Your task to perform on an android device: turn off improve location accuracy Image 0: 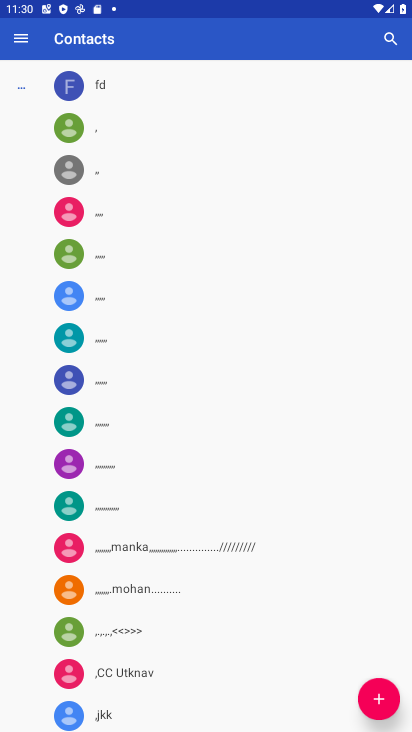
Step 0: press home button
Your task to perform on an android device: turn off improve location accuracy Image 1: 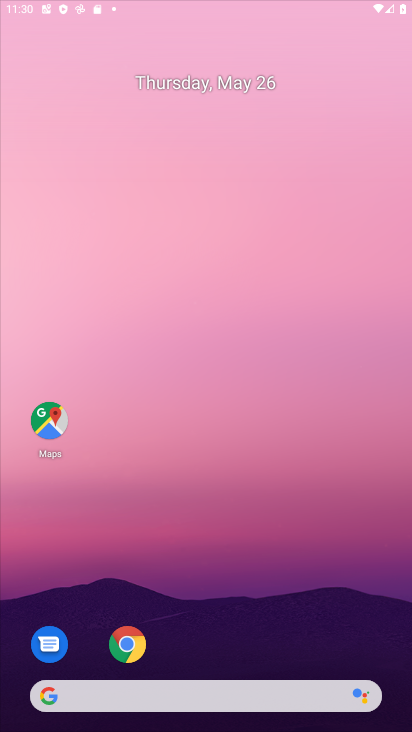
Step 1: drag from (315, 655) to (246, 54)
Your task to perform on an android device: turn off improve location accuracy Image 2: 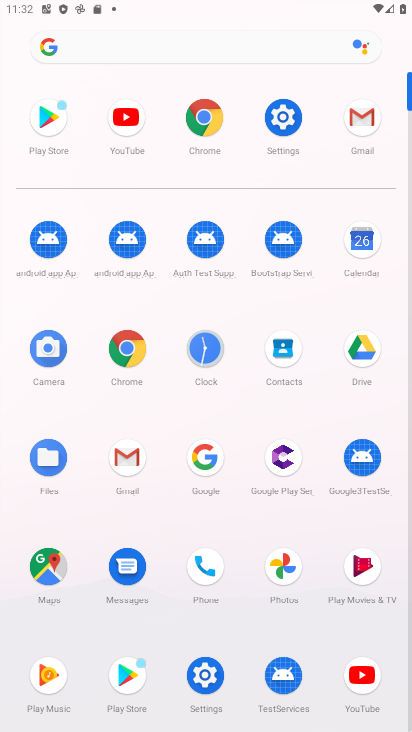
Step 2: click (193, 670)
Your task to perform on an android device: turn off improve location accuracy Image 3: 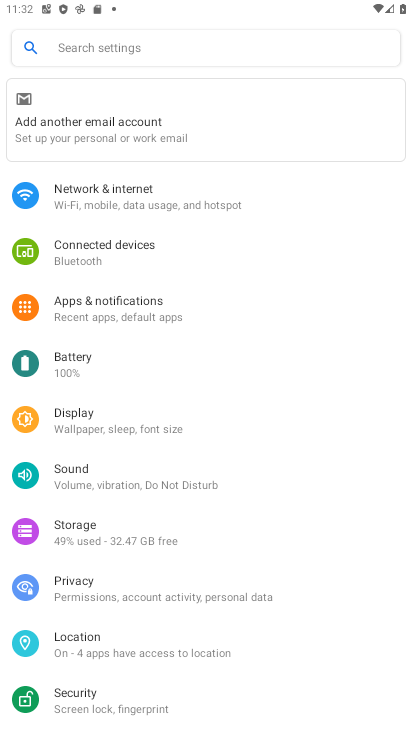
Step 3: click (134, 648)
Your task to perform on an android device: turn off improve location accuracy Image 4: 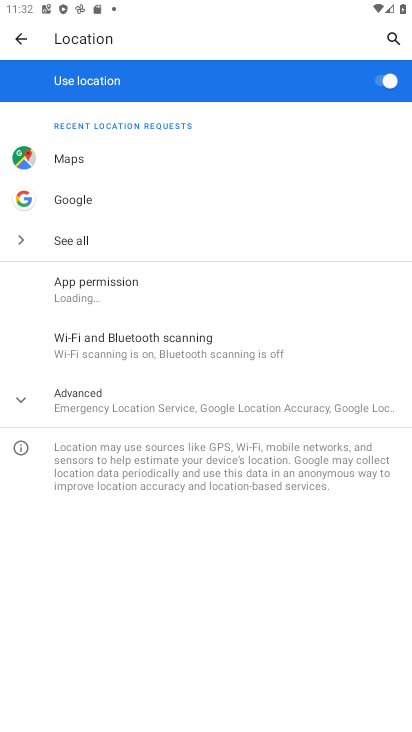
Step 4: click (113, 394)
Your task to perform on an android device: turn off improve location accuracy Image 5: 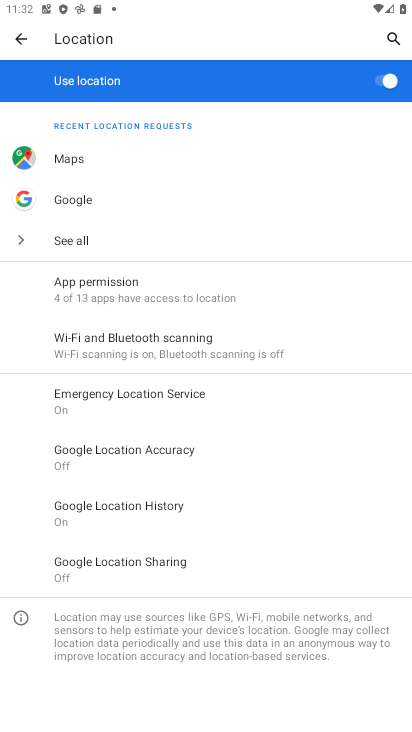
Step 5: click (151, 449)
Your task to perform on an android device: turn off improve location accuracy Image 6: 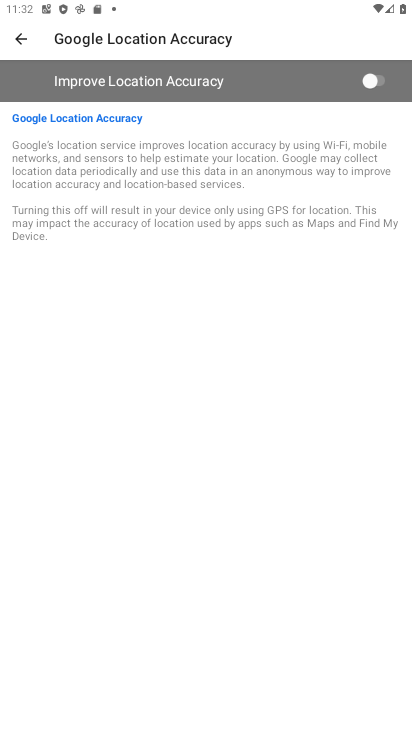
Step 6: task complete